Your task to perform on an android device: open a new tab in the chrome app Image 0: 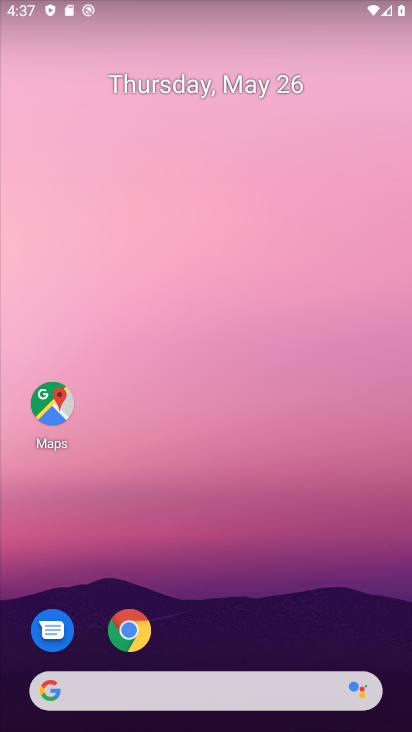
Step 0: click (190, 671)
Your task to perform on an android device: open a new tab in the chrome app Image 1: 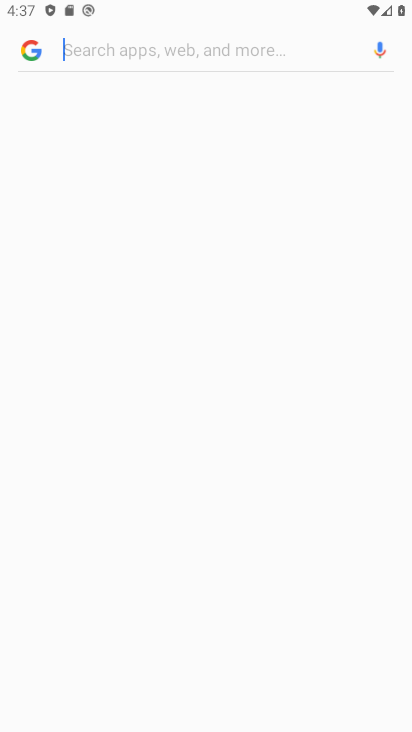
Step 1: click (132, 630)
Your task to perform on an android device: open a new tab in the chrome app Image 2: 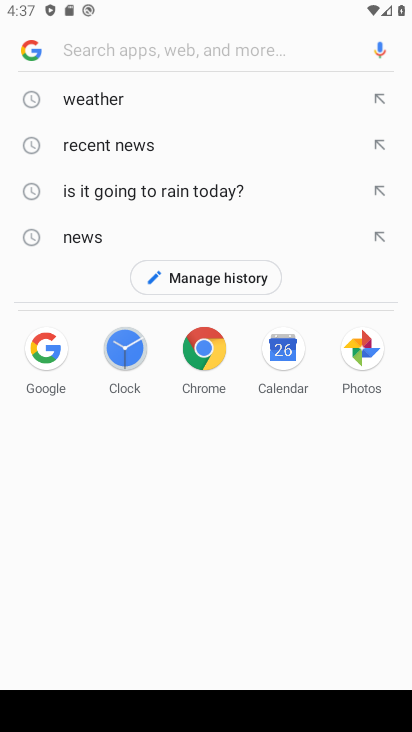
Step 2: click (209, 356)
Your task to perform on an android device: open a new tab in the chrome app Image 3: 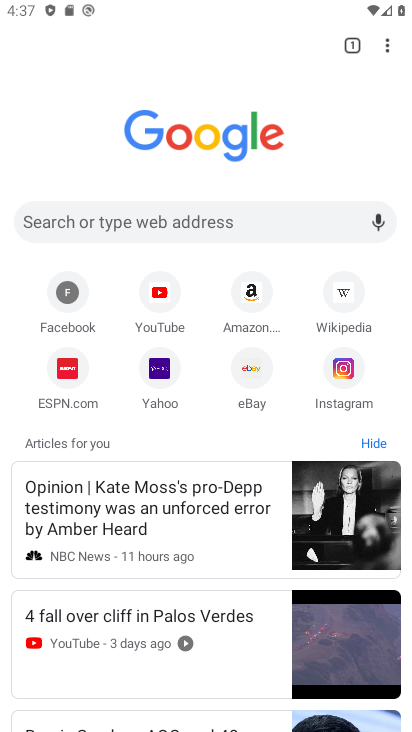
Step 3: click (387, 43)
Your task to perform on an android device: open a new tab in the chrome app Image 4: 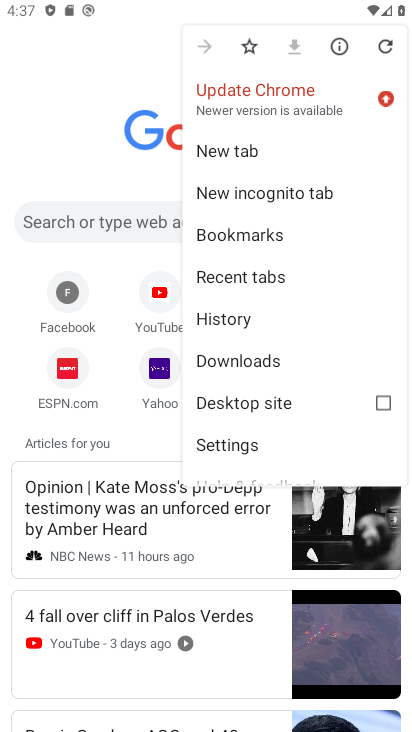
Step 4: click (239, 146)
Your task to perform on an android device: open a new tab in the chrome app Image 5: 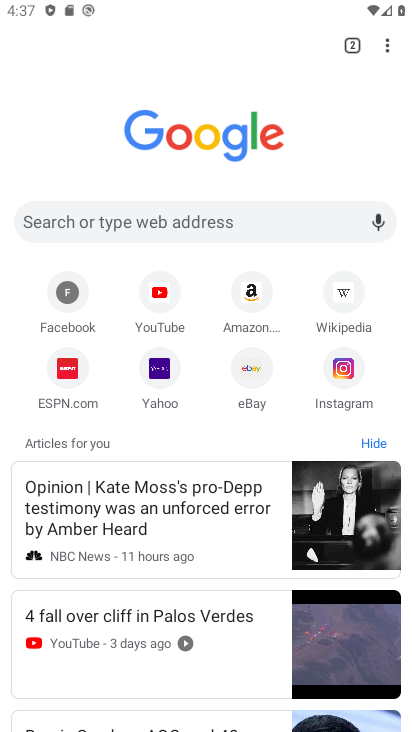
Step 5: task complete